Your task to perform on an android device: Go to network settings Image 0: 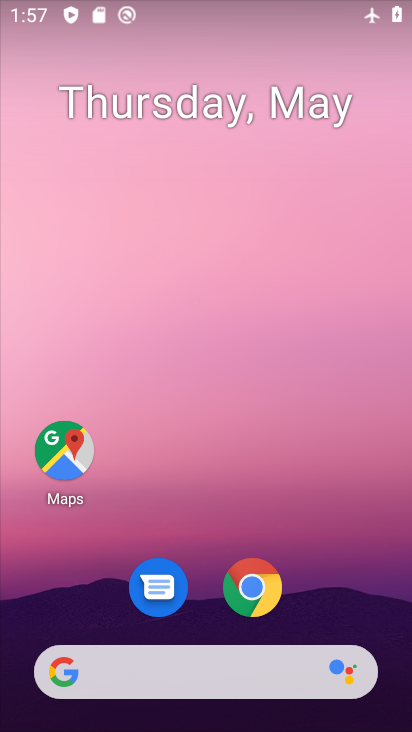
Step 0: drag from (328, 569) to (150, 8)
Your task to perform on an android device: Go to network settings Image 1: 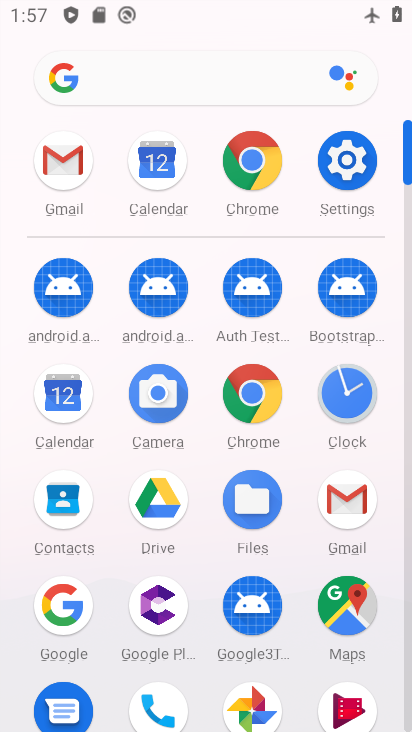
Step 1: click (337, 173)
Your task to perform on an android device: Go to network settings Image 2: 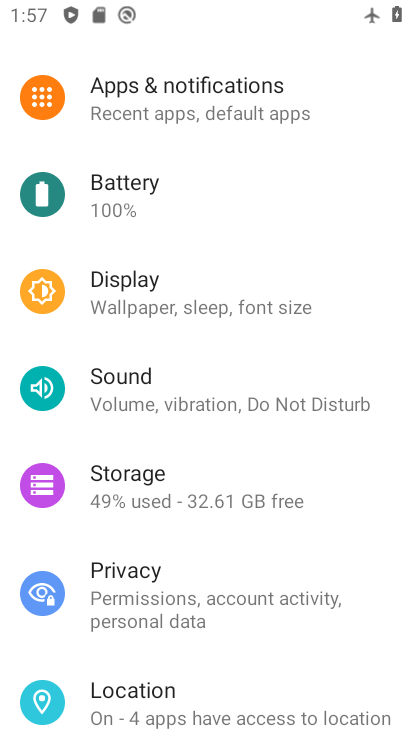
Step 2: drag from (202, 219) to (362, 680)
Your task to perform on an android device: Go to network settings Image 3: 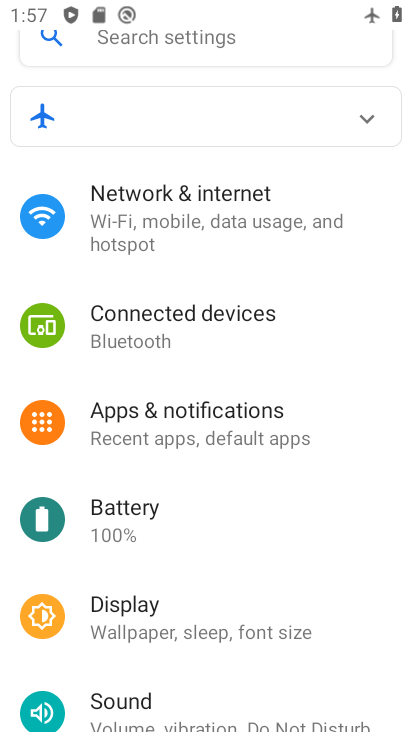
Step 3: click (131, 212)
Your task to perform on an android device: Go to network settings Image 4: 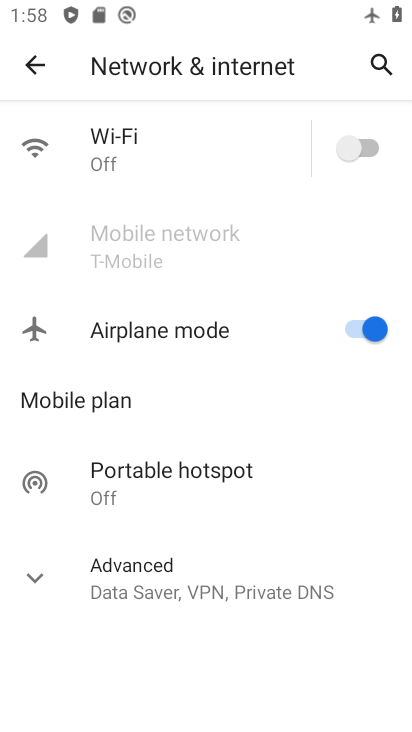
Step 4: click (148, 241)
Your task to perform on an android device: Go to network settings Image 5: 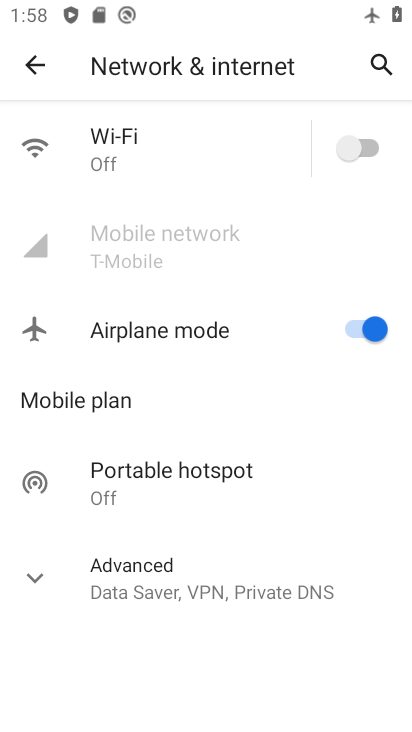
Step 5: task complete